Your task to perform on an android device: Open calendar and show me the second week of next month Image 0: 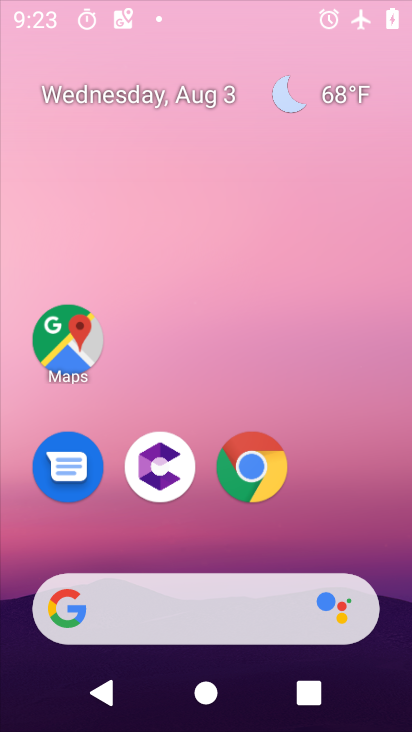
Step 0: drag from (369, 474) to (335, 52)
Your task to perform on an android device: Open calendar and show me the second week of next month Image 1: 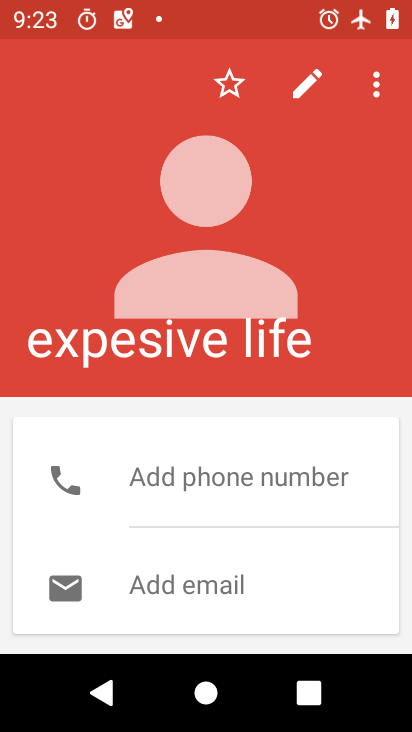
Step 1: press home button
Your task to perform on an android device: Open calendar and show me the second week of next month Image 2: 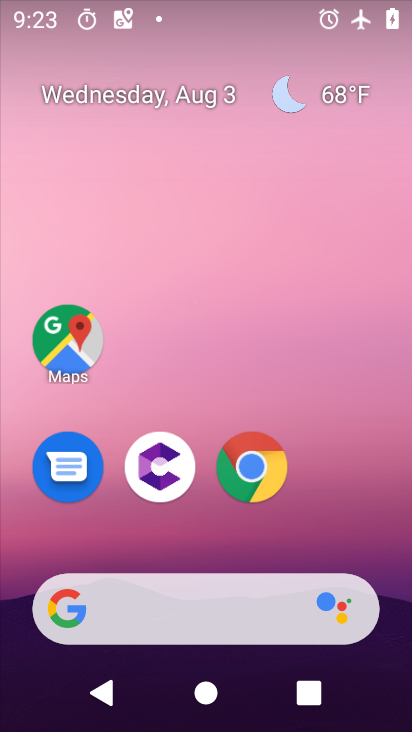
Step 2: drag from (344, 508) to (319, 35)
Your task to perform on an android device: Open calendar and show me the second week of next month Image 3: 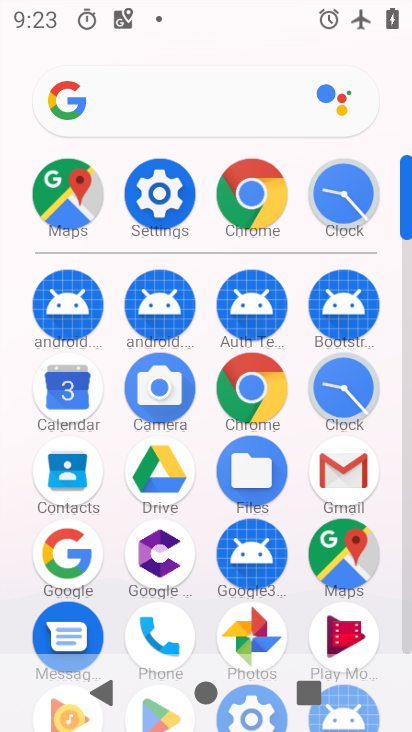
Step 3: click (62, 382)
Your task to perform on an android device: Open calendar and show me the second week of next month Image 4: 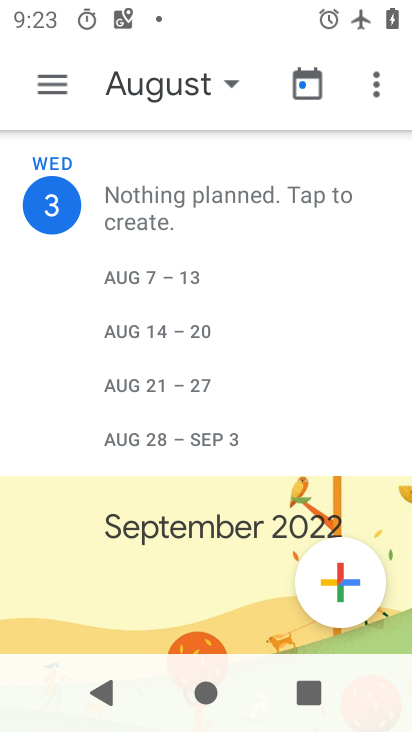
Step 4: click (111, 82)
Your task to perform on an android device: Open calendar and show me the second week of next month Image 5: 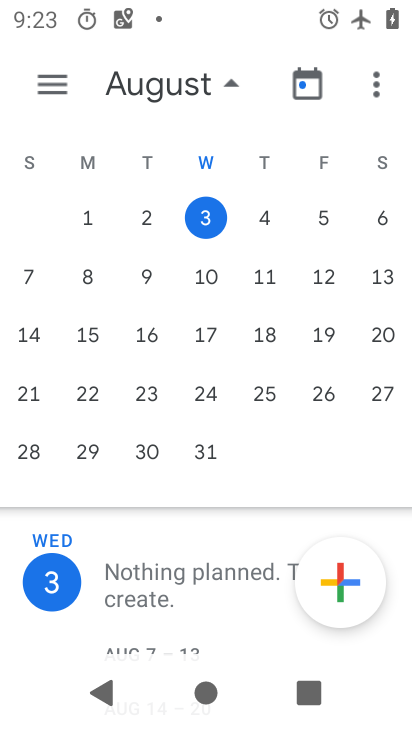
Step 5: drag from (377, 359) to (32, 341)
Your task to perform on an android device: Open calendar and show me the second week of next month Image 6: 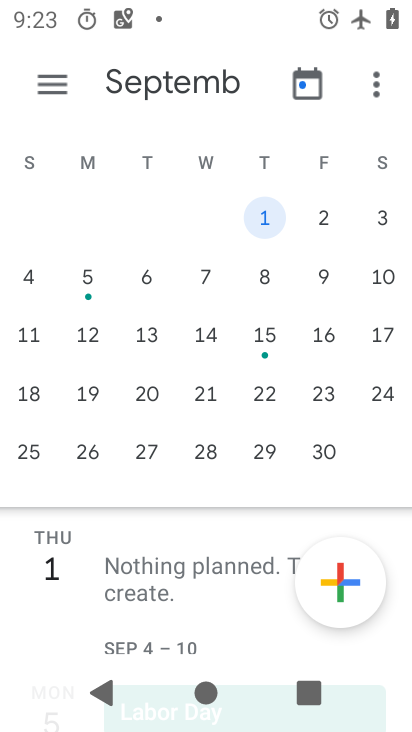
Step 6: click (92, 330)
Your task to perform on an android device: Open calendar and show me the second week of next month Image 7: 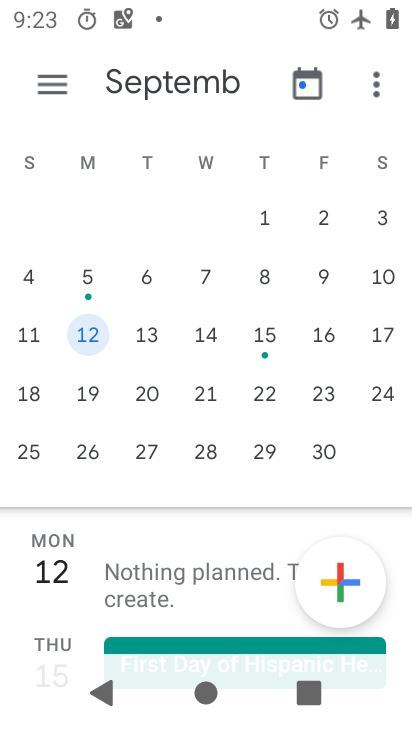
Step 7: click (43, 82)
Your task to perform on an android device: Open calendar and show me the second week of next month Image 8: 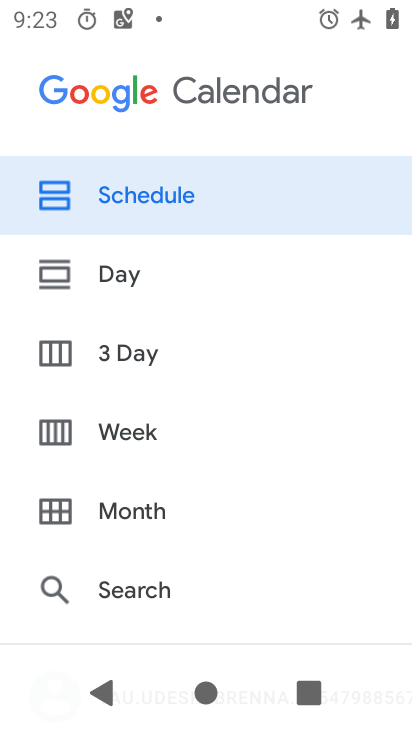
Step 8: click (115, 432)
Your task to perform on an android device: Open calendar and show me the second week of next month Image 9: 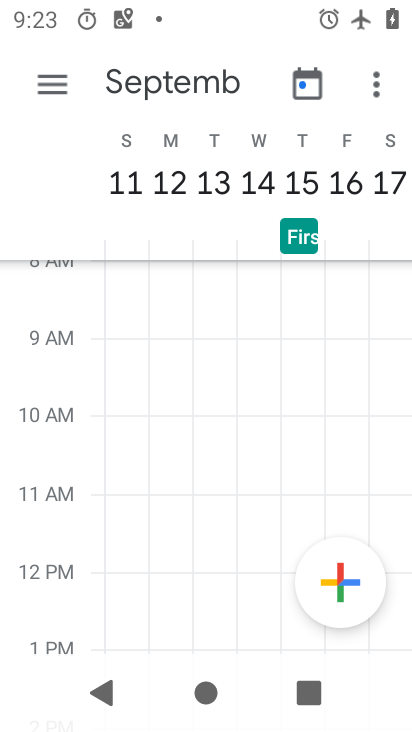
Step 9: task complete